Your task to perform on an android device: open app "Cash App" (install if not already installed) and go to login screen Image 0: 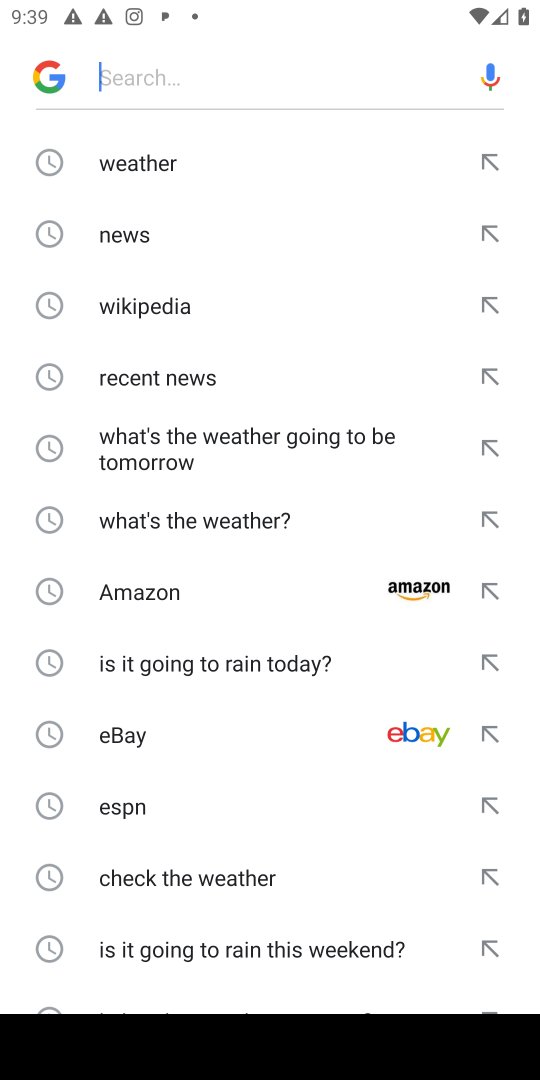
Step 0: press home button
Your task to perform on an android device: open app "Cash App" (install if not already installed) and go to login screen Image 1: 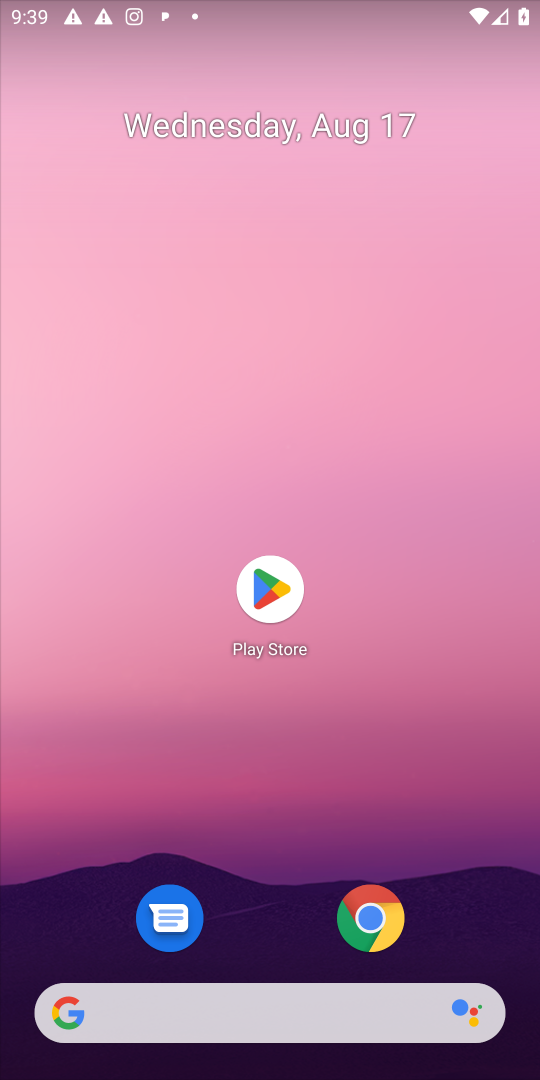
Step 1: click (265, 601)
Your task to perform on an android device: open app "Cash App" (install if not already installed) and go to login screen Image 2: 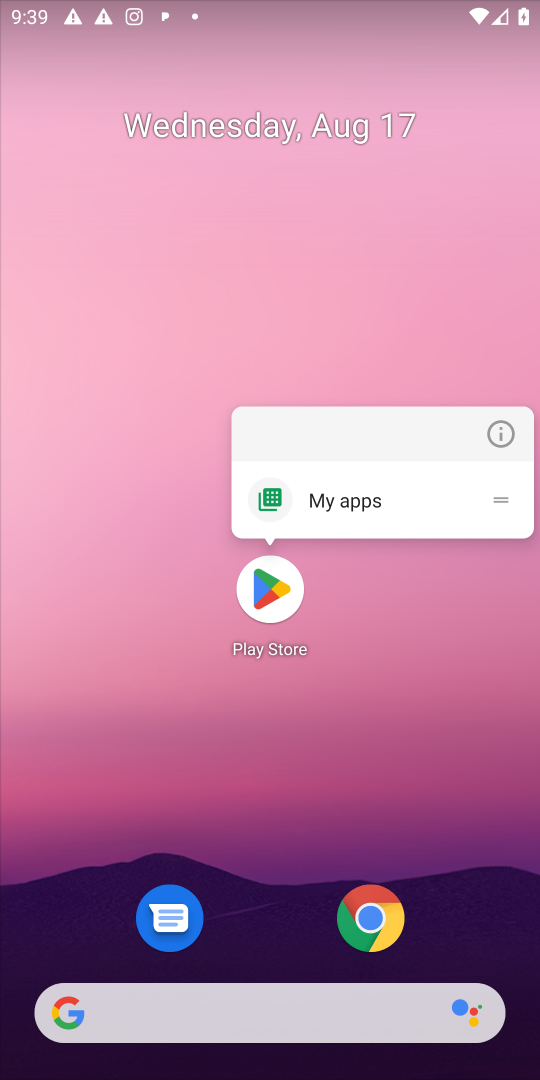
Step 2: click (274, 589)
Your task to perform on an android device: open app "Cash App" (install if not already installed) and go to login screen Image 3: 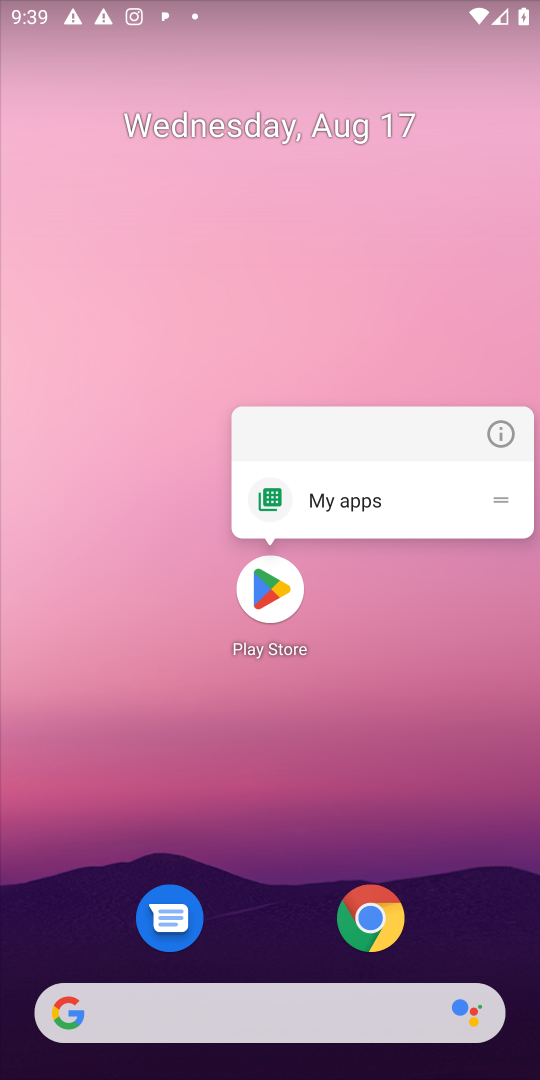
Step 3: click (274, 589)
Your task to perform on an android device: open app "Cash App" (install if not already installed) and go to login screen Image 4: 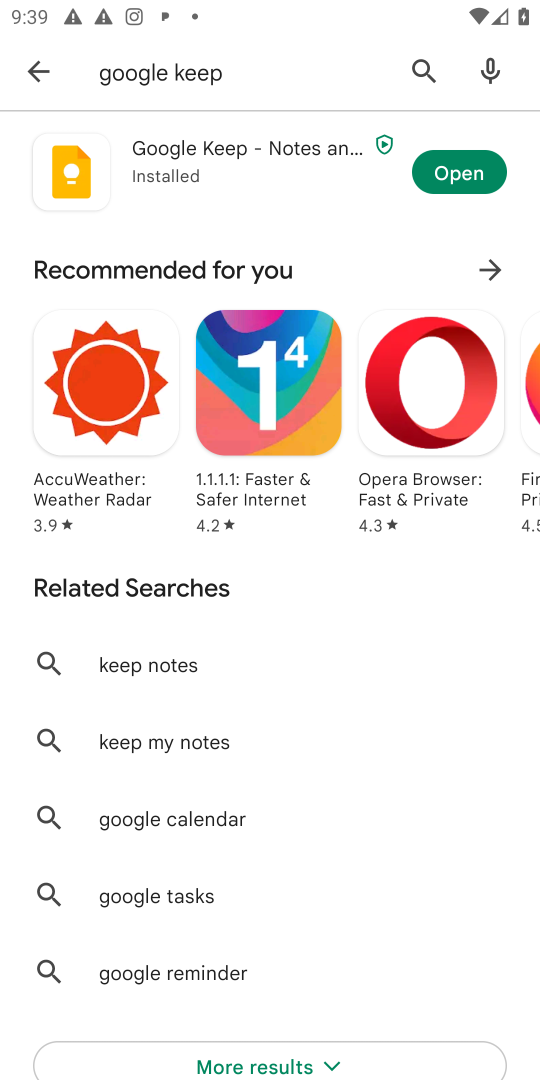
Step 4: click (416, 73)
Your task to perform on an android device: open app "Cash App" (install if not already installed) and go to login screen Image 5: 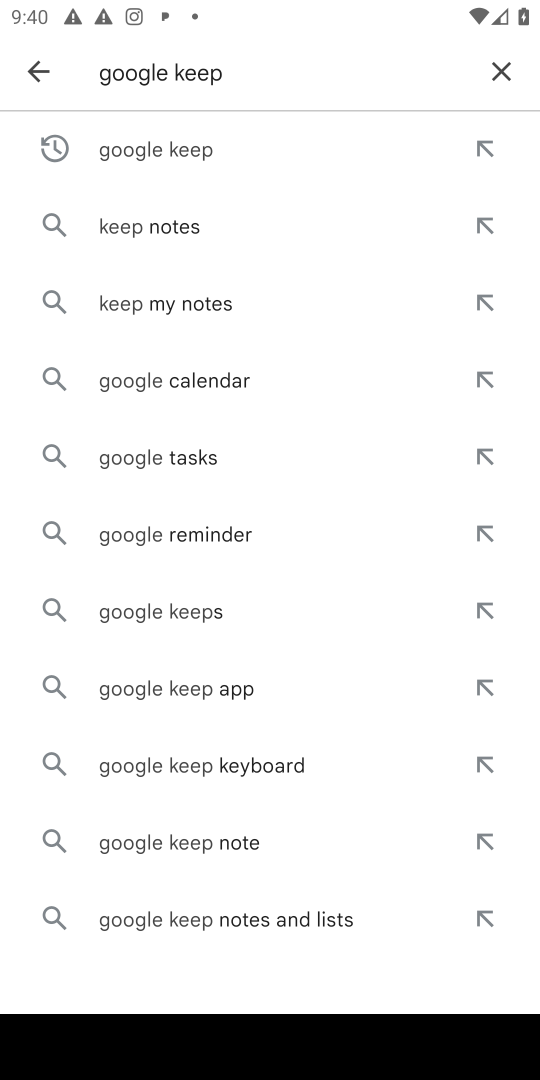
Step 5: click (500, 62)
Your task to perform on an android device: open app "Cash App" (install if not already installed) and go to login screen Image 6: 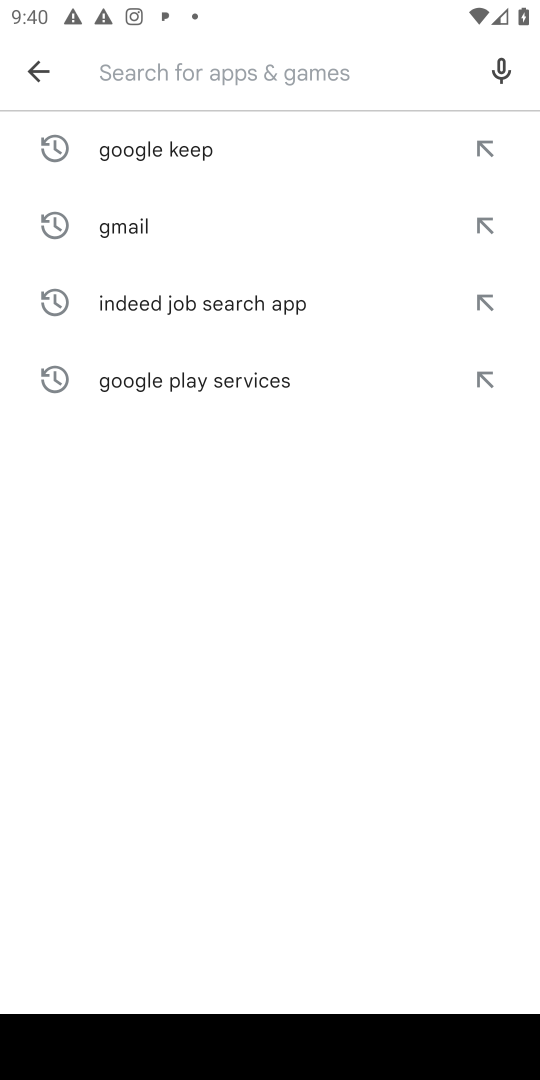
Step 6: type "Cash App"
Your task to perform on an android device: open app "Cash App" (install if not already installed) and go to login screen Image 7: 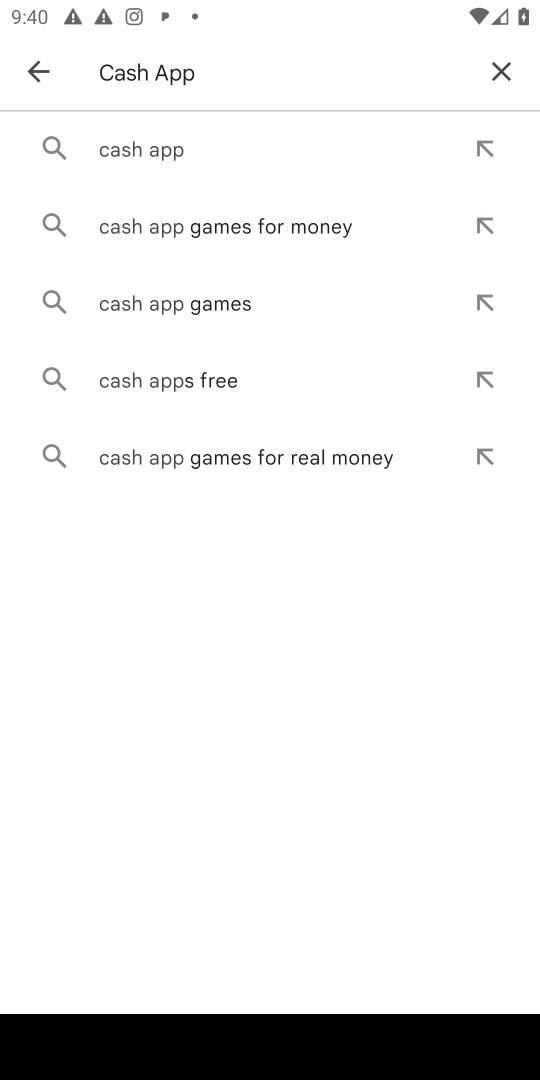
Step 7: click (105, 157)
Your task to perform on an android device: open app "Cash App" (install if not already installed) and go to login screen Image 8: 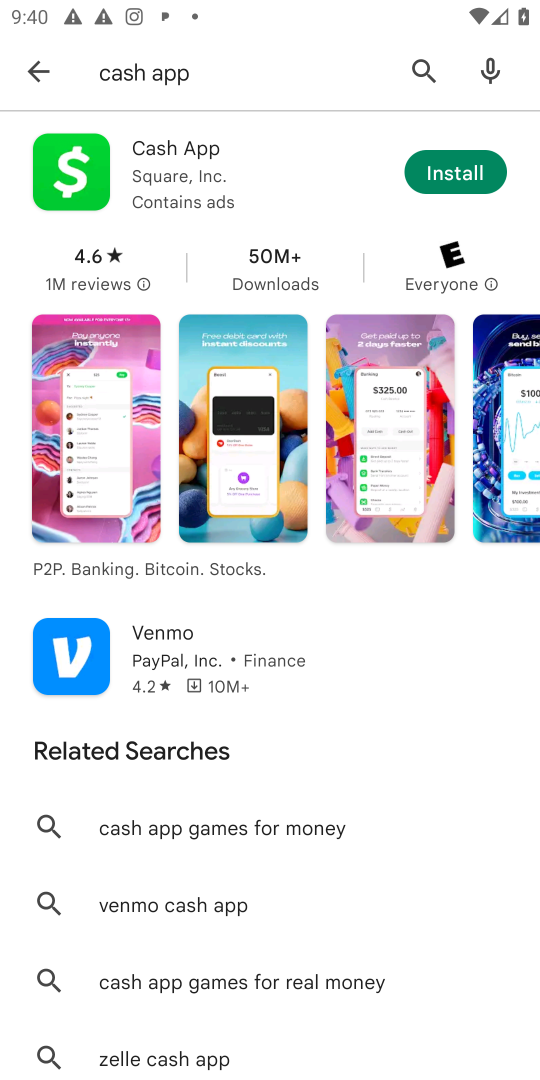
Step 8: click (477, 172)
Your task to perform on an android device: open app "Cash App" (install if not already installed) and go to login screen Image 9: 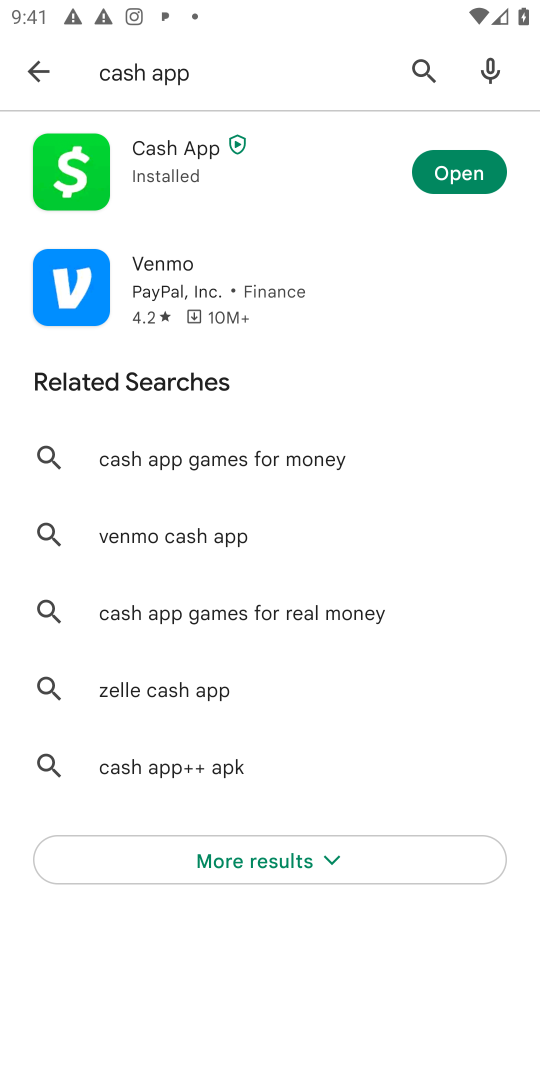
Step 9: click (450, 168)
Your task to perform on an android device: open app "Cash App" (install if not already installed) and go to login screen Image 10: 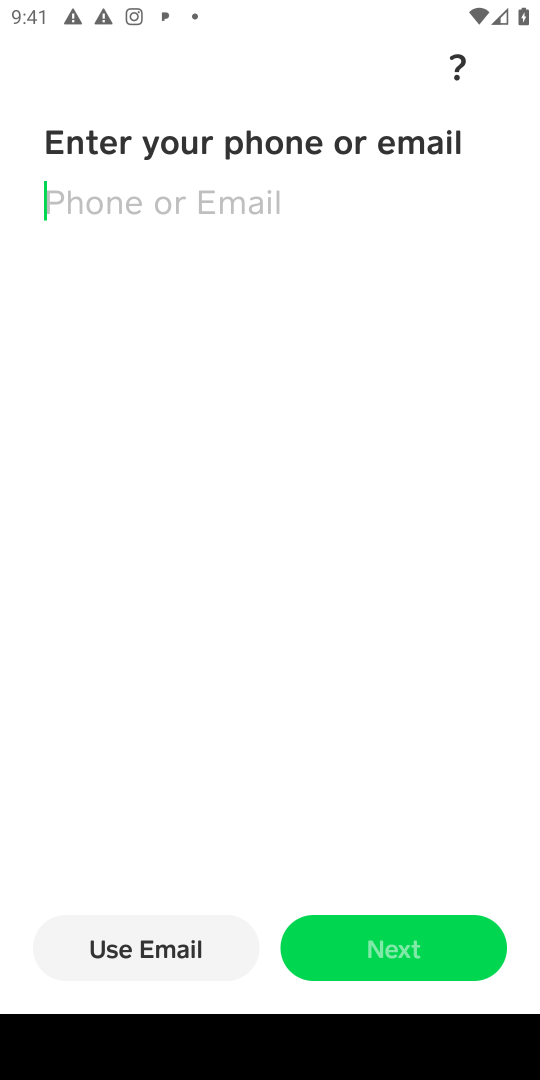
Step 10: task complete